Your task to perform on an android device: Go to network settings Image 0: 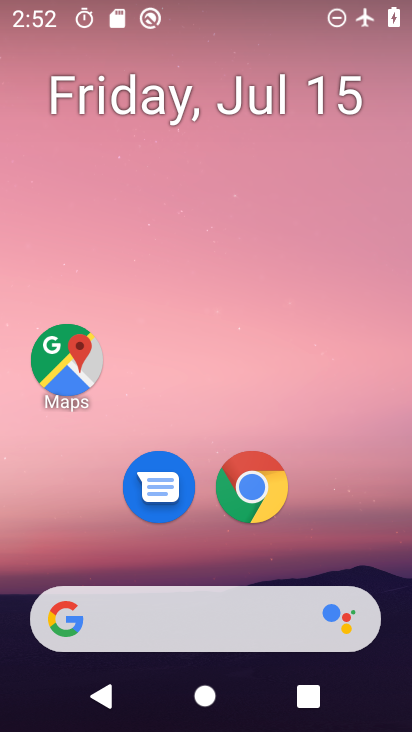
Step 0: drag from (250, 493) to (282, 180)
Your task to perform on an android device: Go to network settings Image 1: 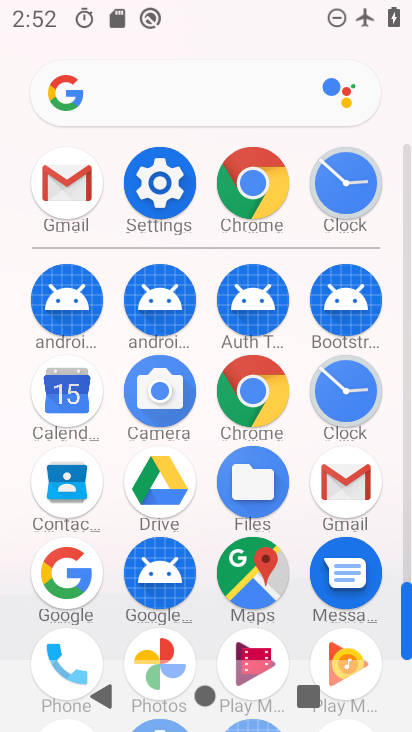
Step 1: click (145, 224)
Your task to perform on an android device: Go to network settings Image 2: 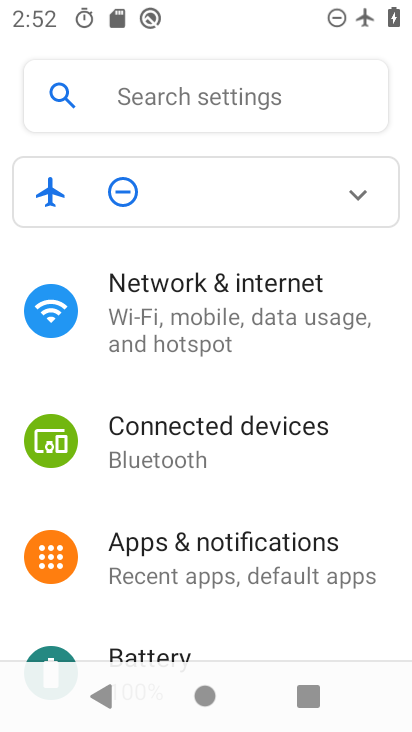
Step 2: click (246, 315)
Your task to perform on an android device: Go to network settings Image 3: 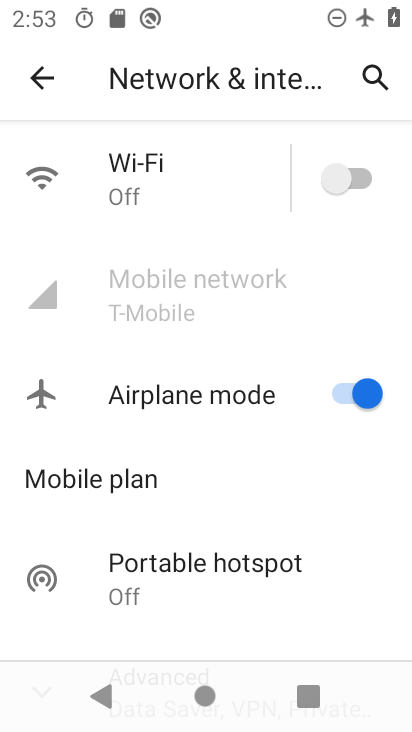
Step 3: click (220, 293)
Your task to perform on an android device: Go to network settings Image 4: 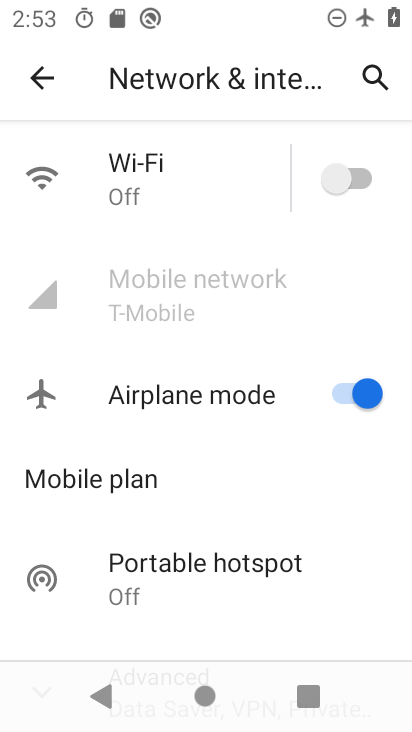
Step 4: task complete